Your task to perform on an android device: open app "LiveIn - Share Your Moment" (install if not already installed) and go to login screen Image 0: 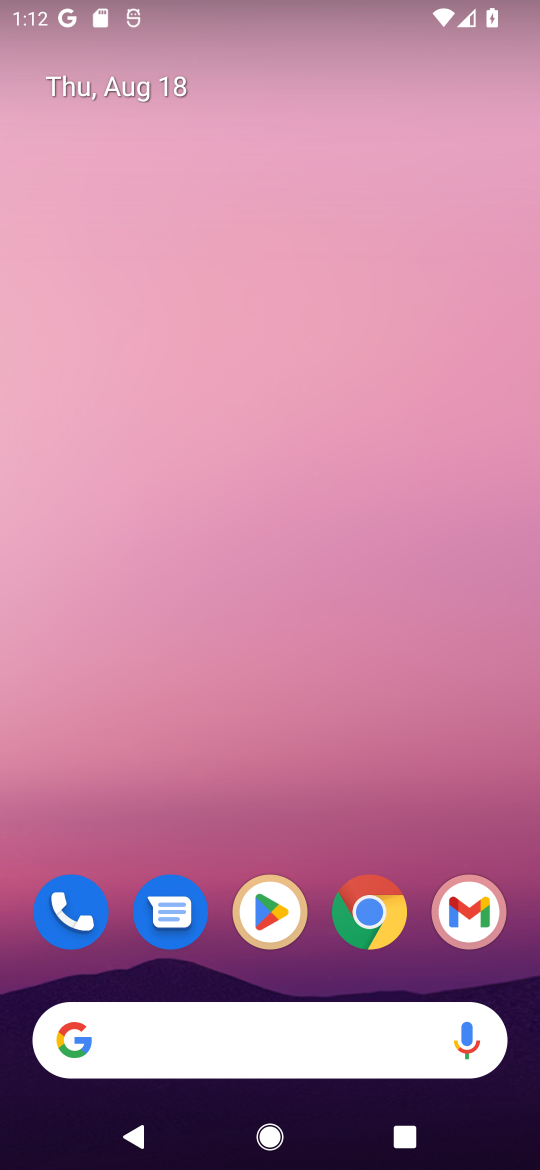
Step 0: click (266, 901)
Your task to perform on an android device: open app "LiveIn - Share Your Moment" (install if not already installed) and go to login screen Image 1: 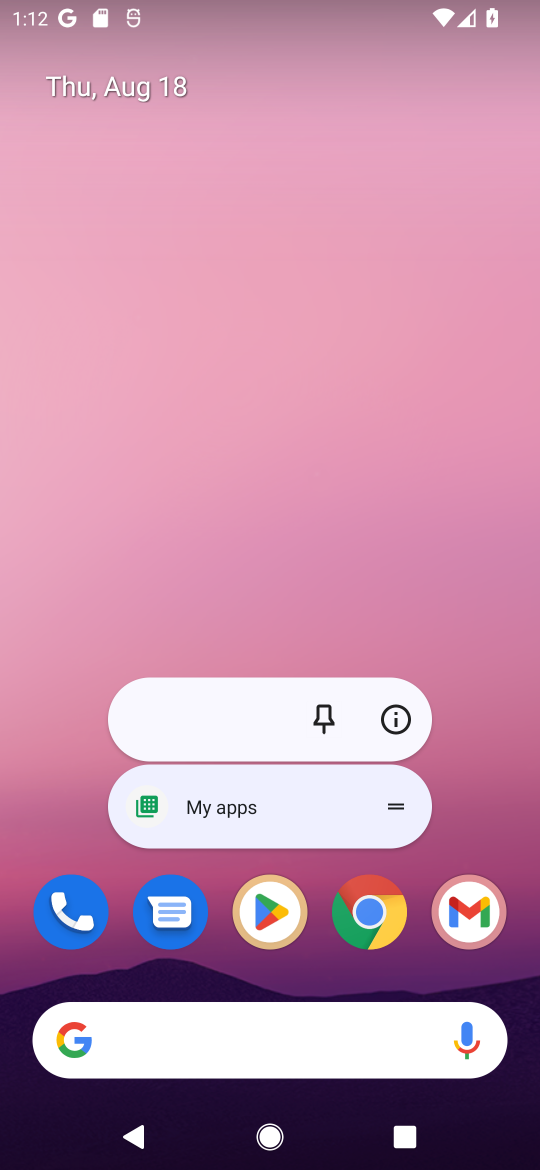
Step 1: click (278, 916)
Your task to perform on an android device: open app "LiveIn - Share Your Moment" (install if not already installed) and go to login screen Image 2: 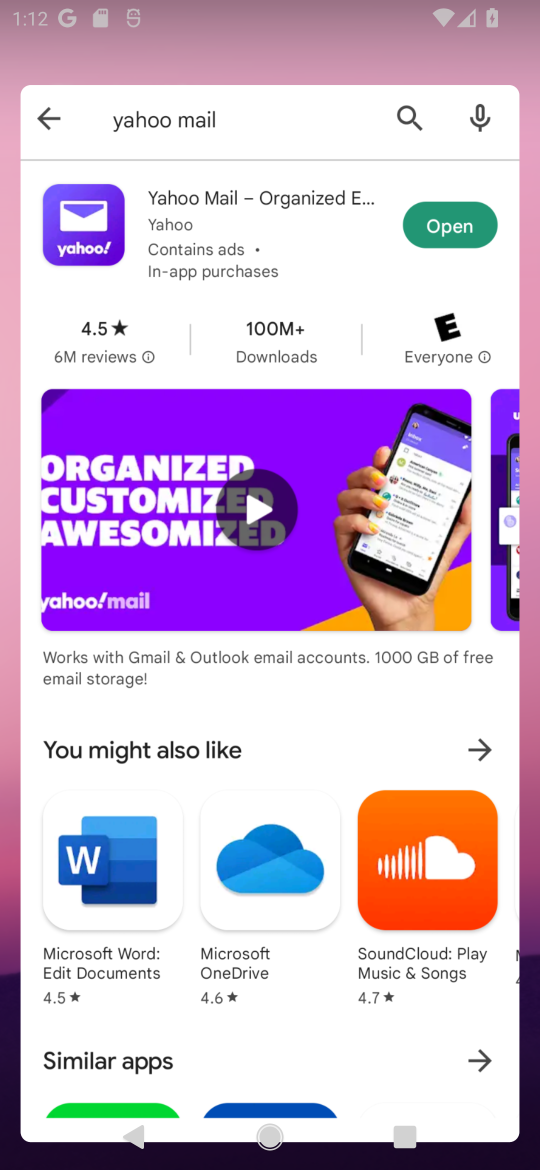
Step 2: click (278, 919)
Your task to perform on an android device: open app "LiveIn - Share Your Moment" (install if not already installed) and go to login screen Image 3: 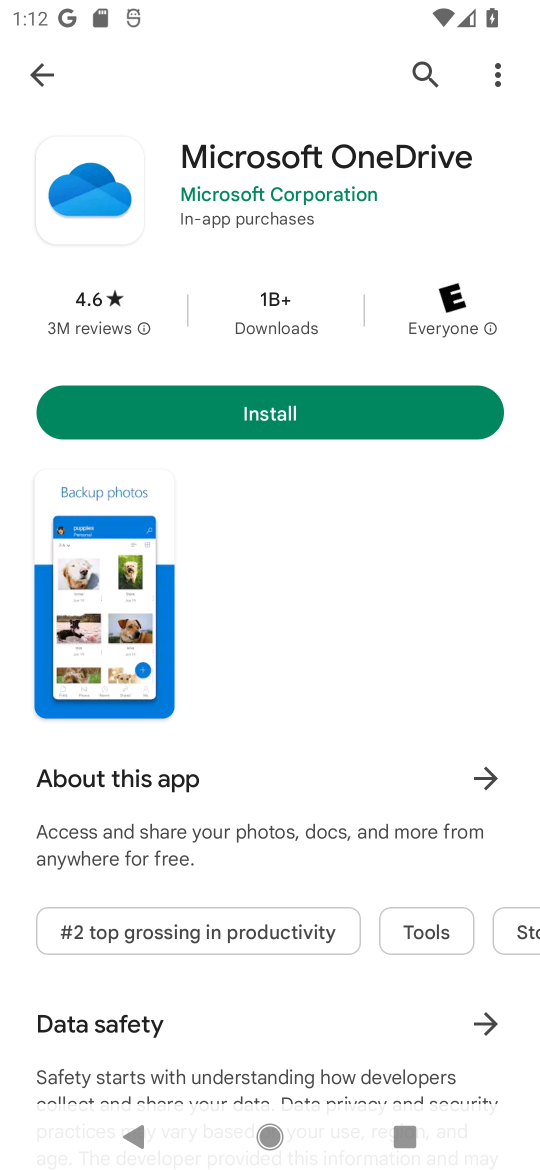
Step 3: click (416, 70)
Your task to perform on an android device: open app "LiveIn - Share Your Moment" (install if not already installed) and go to login screen Image 4: 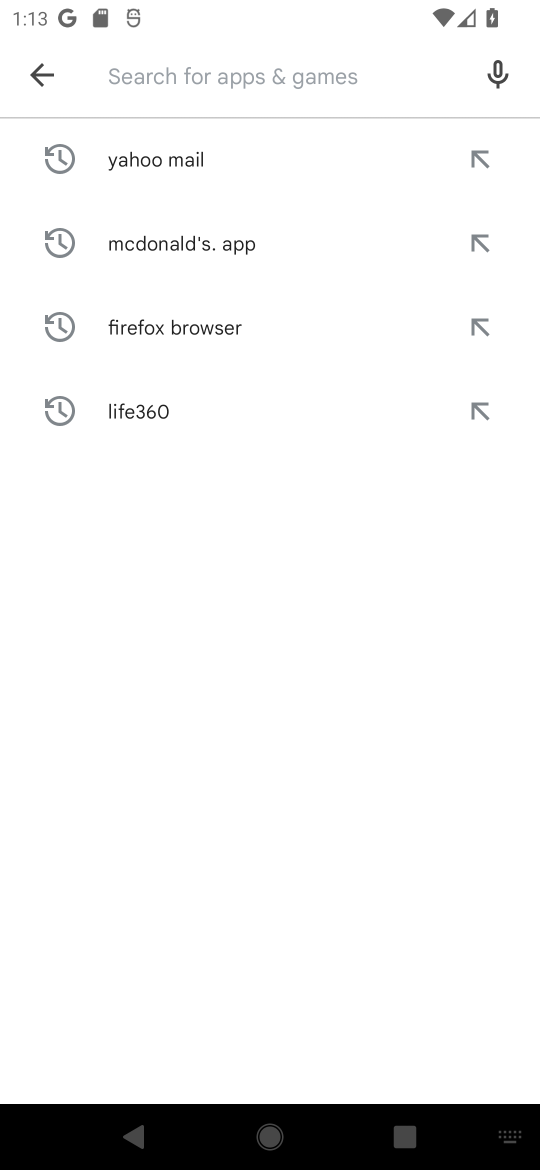
Step 4: click (220, 72)
Your task to perform on an android device: open app "LiveIn - Share Your Moment" (install if not already installed) and go to login screen Image 5: 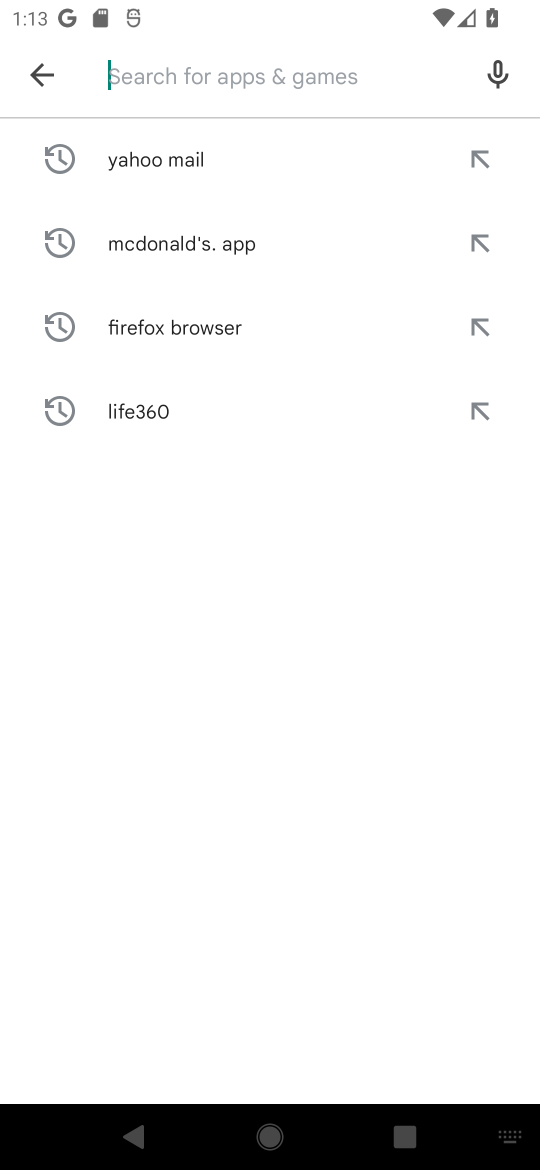
Step 5: type "LiveIn"
Your task to perform on an android device: open app "LiveIn - Share Your Moment" (install if not already installed) and go to login screen Image 6: 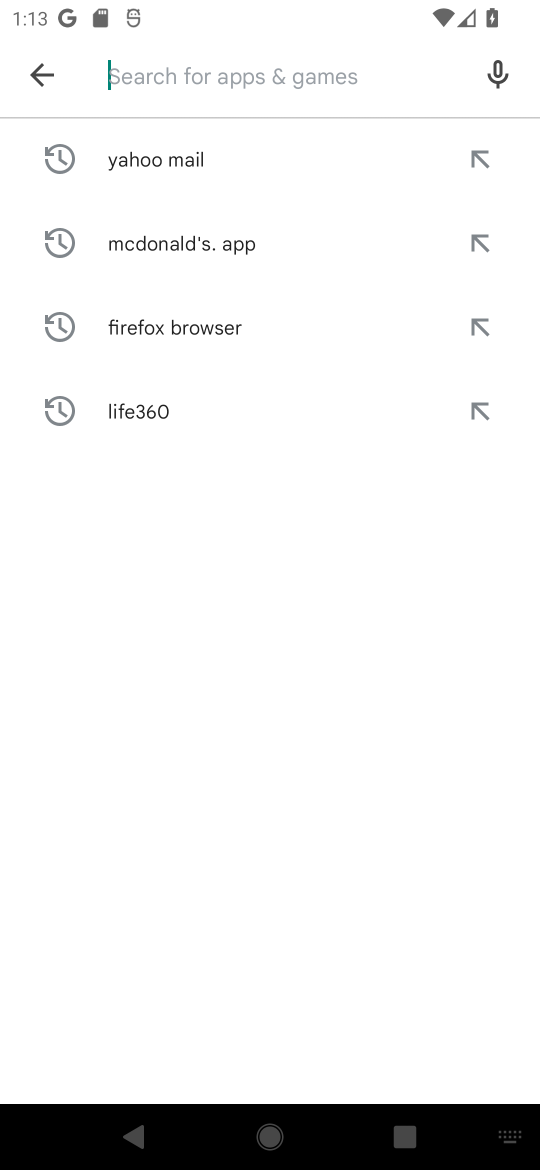
Step 6: click (323, 683)
Your task to perform on an android device: open app "LiveIn - Share Your Moment" (install if not already installed) and go to login screen Image 7: 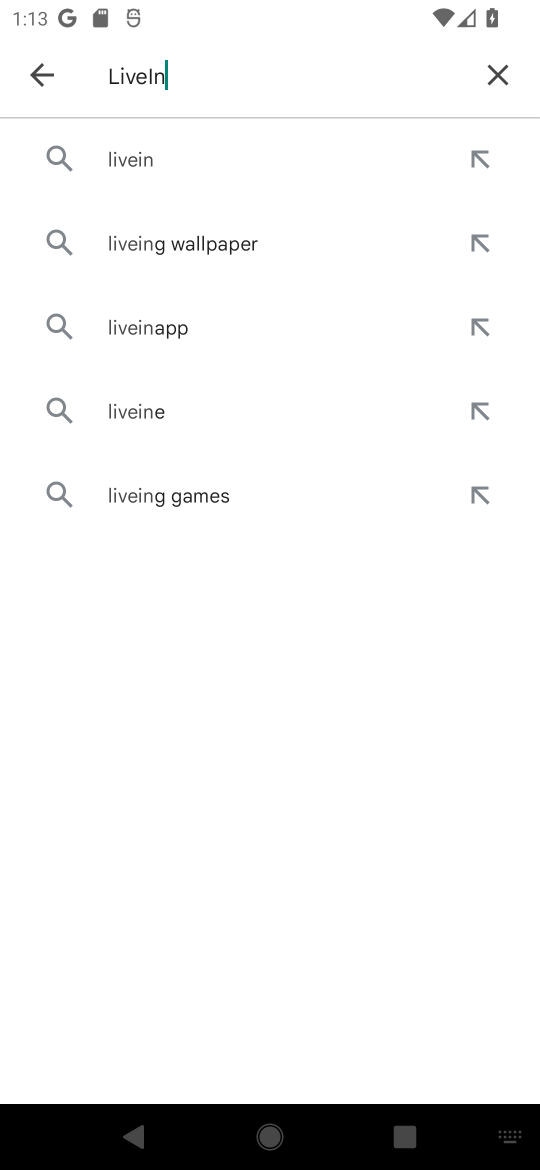
Step 7: click (119, 162)
Your task to perform on an android device: open app "LiveIn - Share Your Moment" (install if not already installed) and go to login screen Image 8: 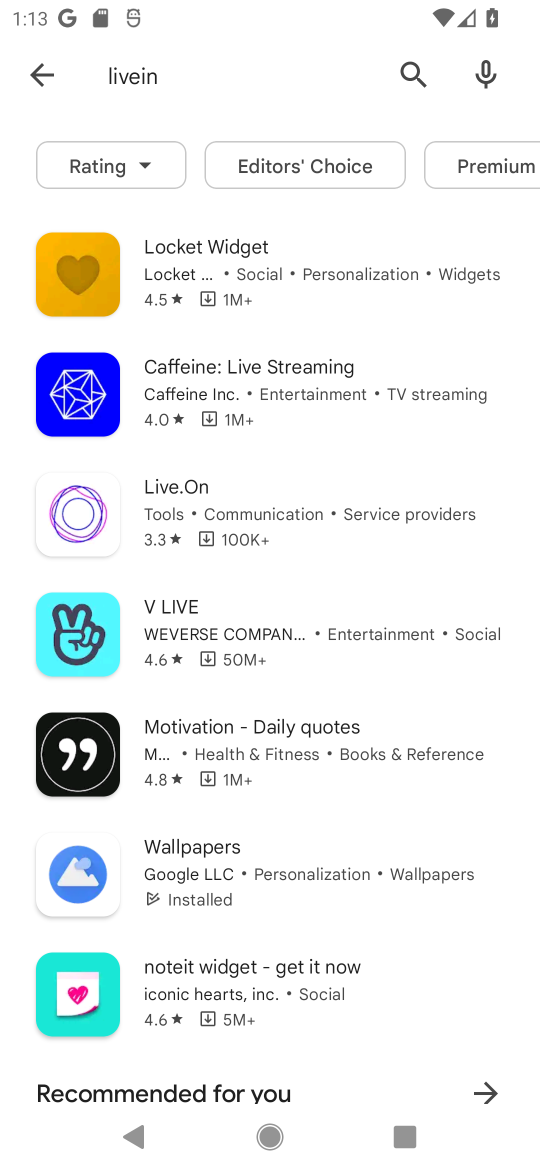
Step 8: task complete